Your task to perform on an android device: toggle notifications settings in the gmail app Image 0: 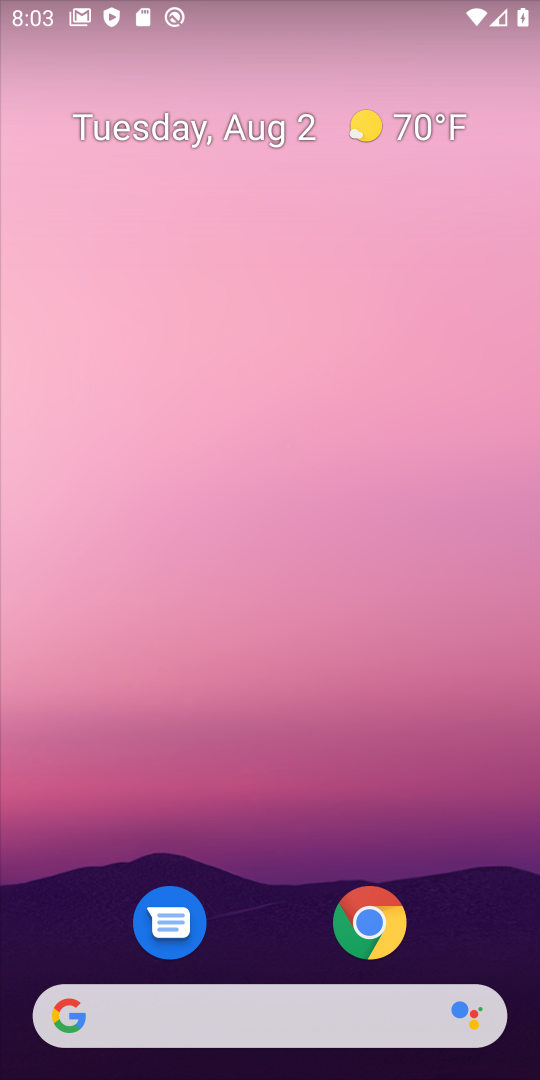
Step 0: drag from (491, 882) to (355, 105)
Your task to perform on an android device: toggle notifications settings in the gmail app Image 1: 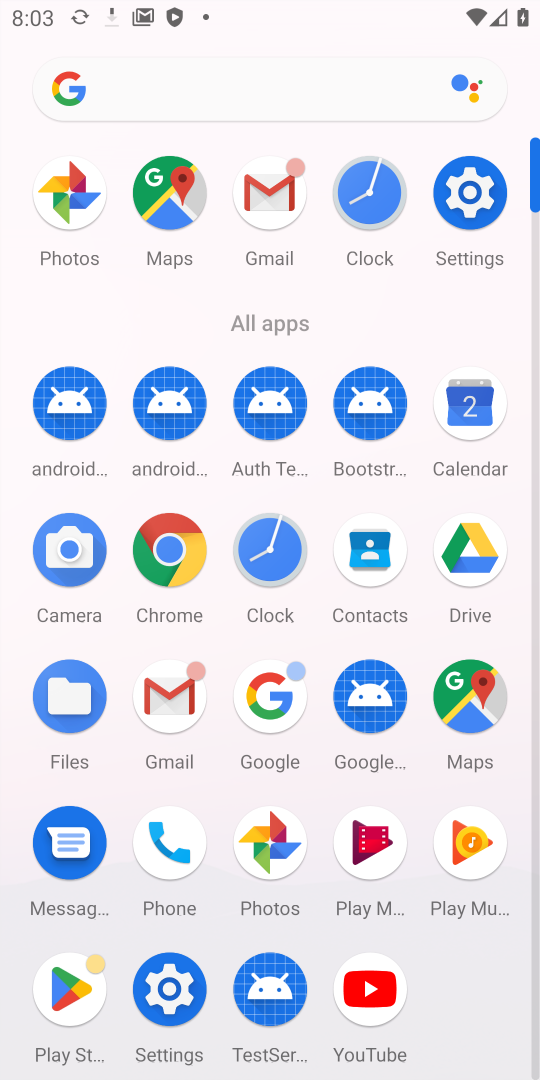
Step 1: click (178, 694)
Your task to perform on an android device: toggle notifications settings in the gmail app Image 2: 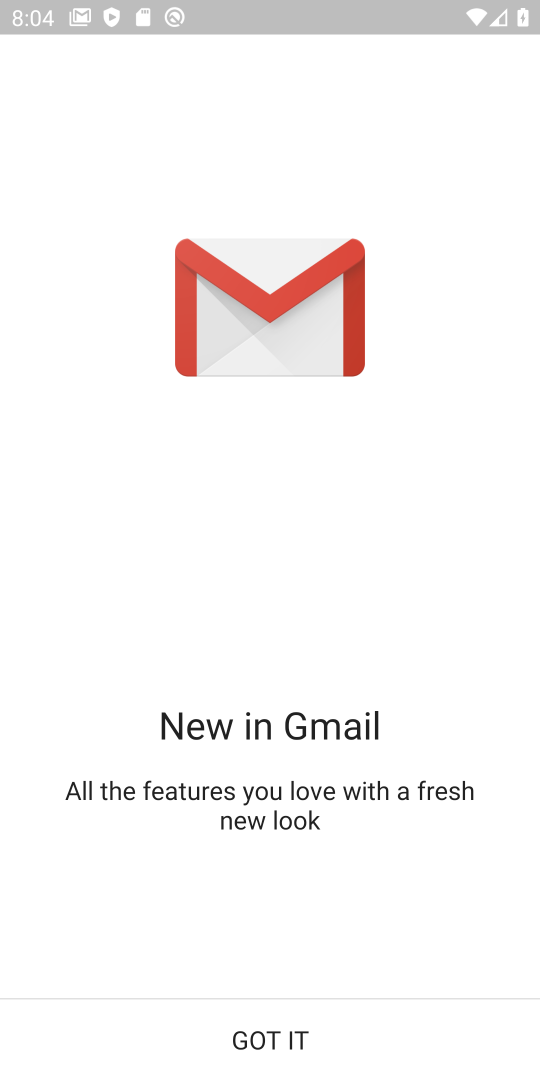
Step 2: click (353, 1048)
Your task to perform on an android device: toggle notifications settings in the gmail app Image 3: 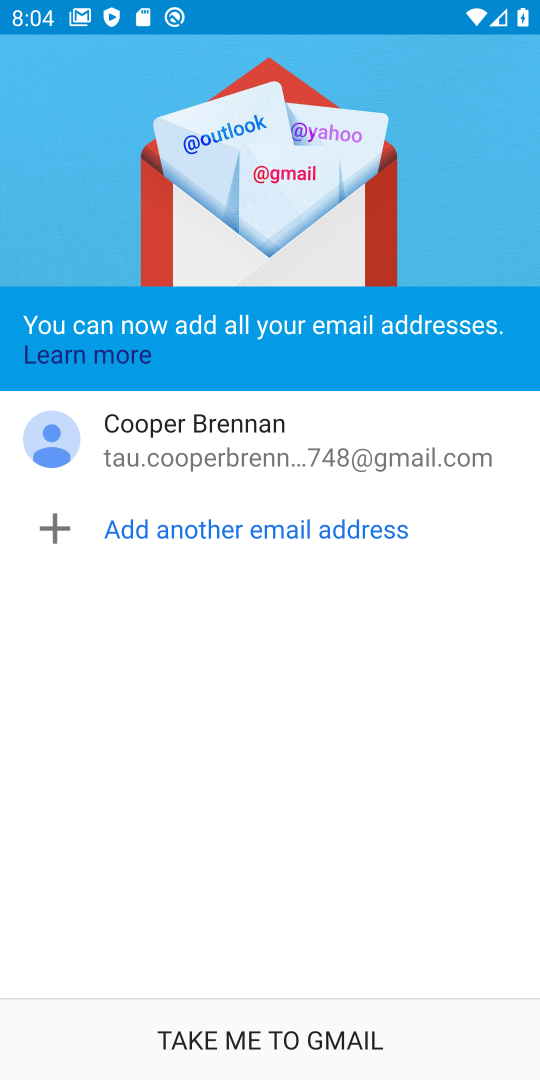
Step 3: click (239, 443)
Your task to perform on an android device: toggle notifications settings in the gmail app Image 4: 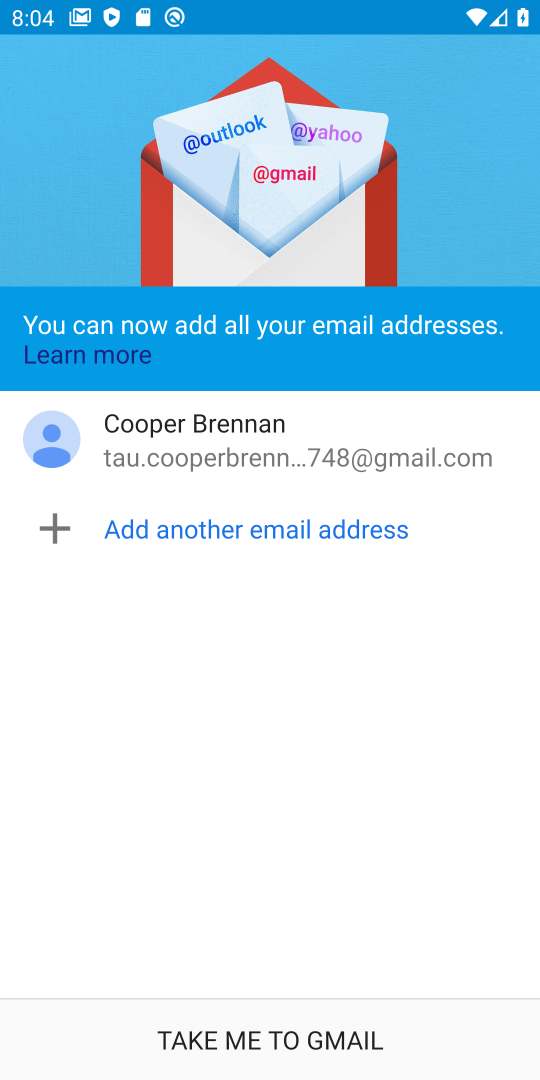
Step 4: click (239, 443)
Your task to perform on an android device: toggle notifications settings in the gmail app Image 5: 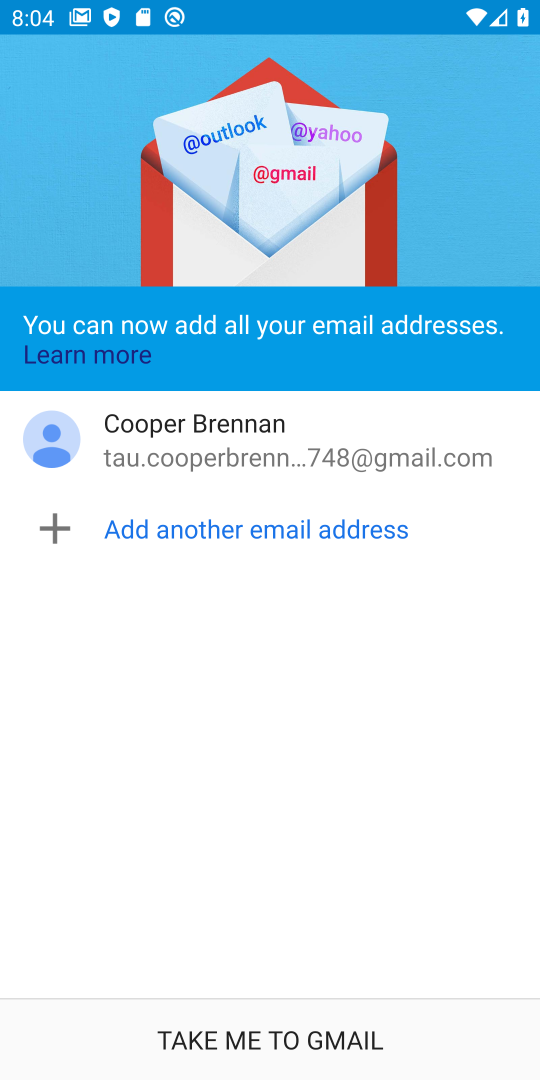
Step 5: click (347, 1012)
Your task to perform on an android device: toggle notifications settings in the gmail app Image 6: 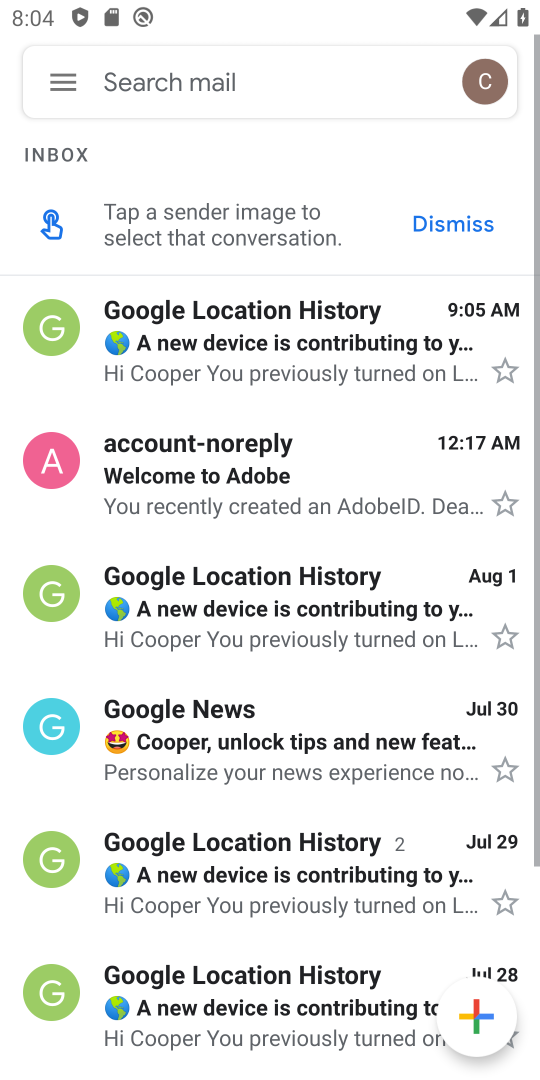
Step 6: click (71, 87)
Your task to perform on an android device: toggle notifications settings in the gmail app Image 7: 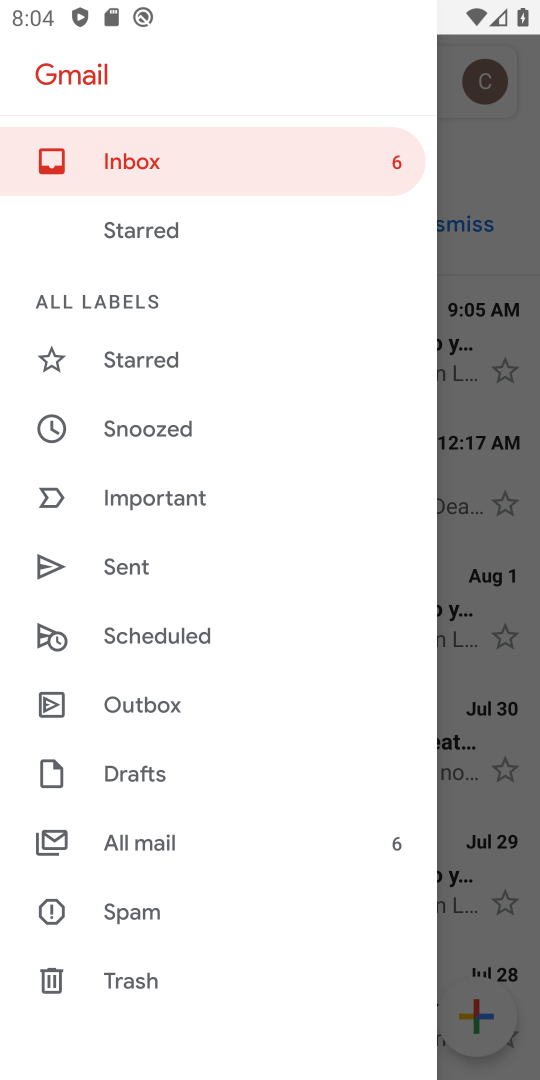
Step 7: drag from (191, 787) to (186, 141)
Your task to perform on an android device: toggle notifications settings in the gmail app Image 8: 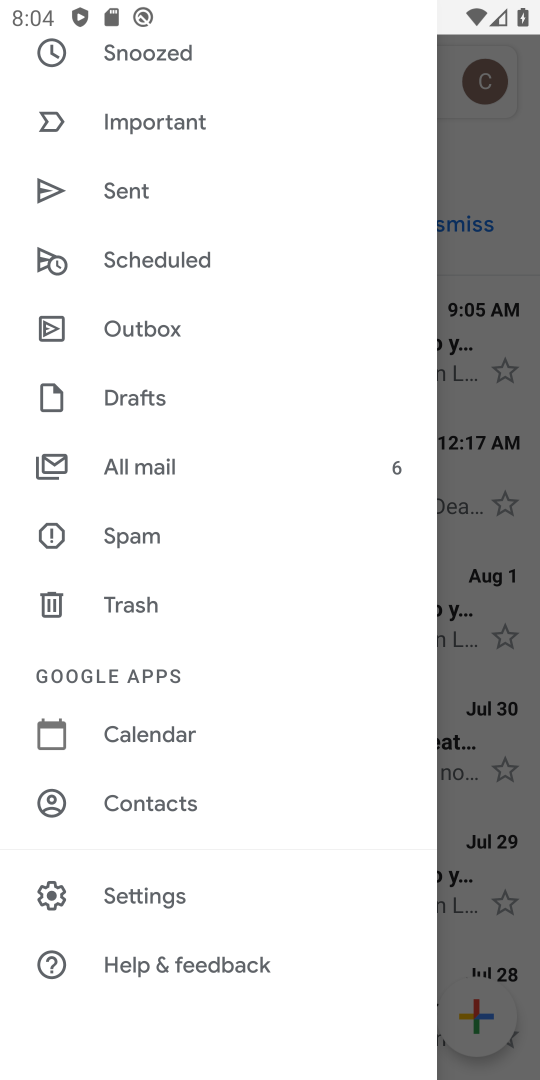
Step 8: click (166, 885)
Your task to perform on an android device: toggle notifications settings in the gmail app Image 9: 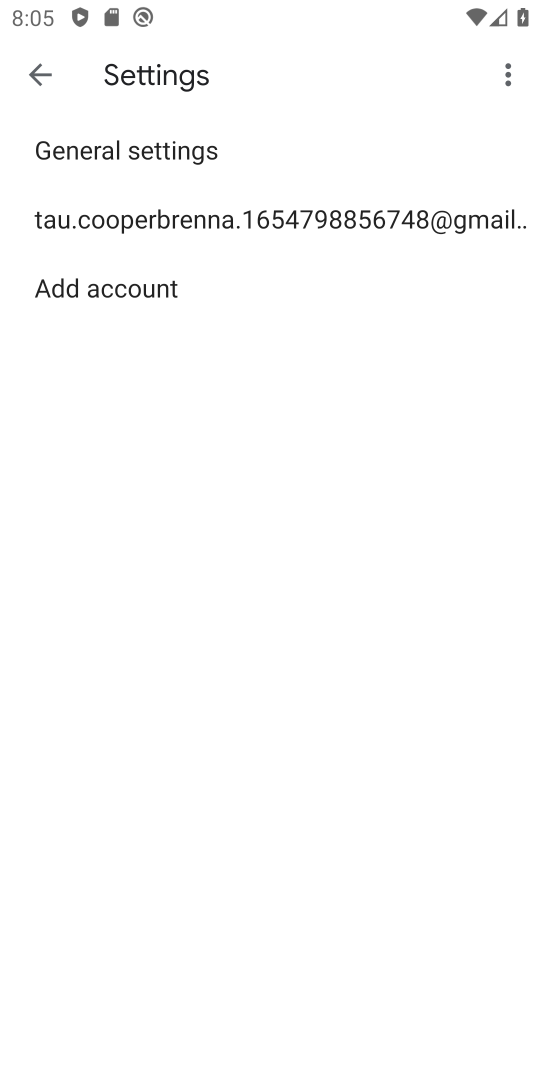
Step 9: click (152, 212)
Your task to perform on an android device: toggle notifications settings in the gmail app Image 10: 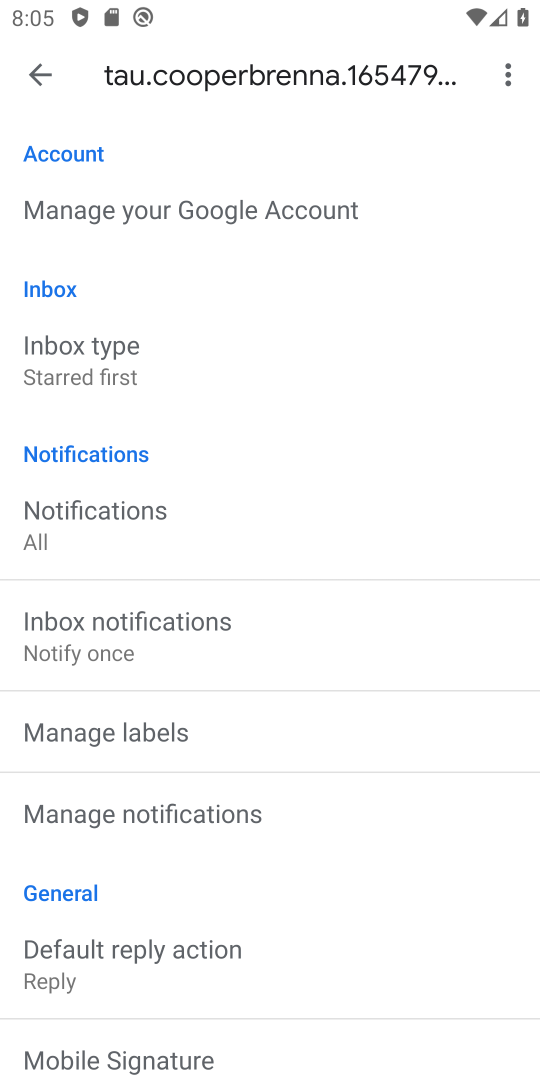
Step 10: click (152, 527)
Your task to perform on an android device: toggle notifications settings in the gmail app Image 11: 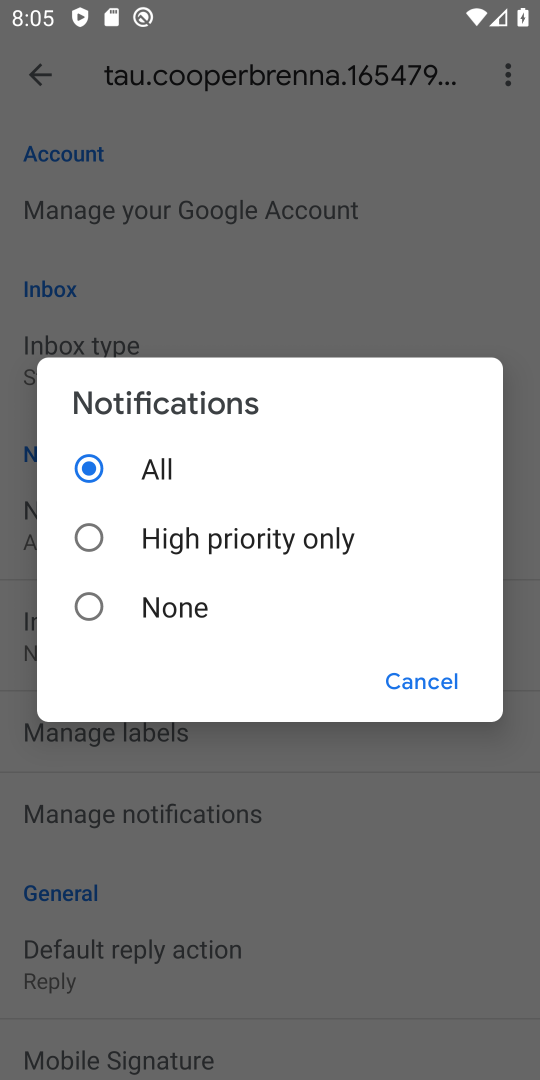
Step 11: click (104, 598)
Your task to perform on an android device: toggle notifications settings in the gmail app Image 12: 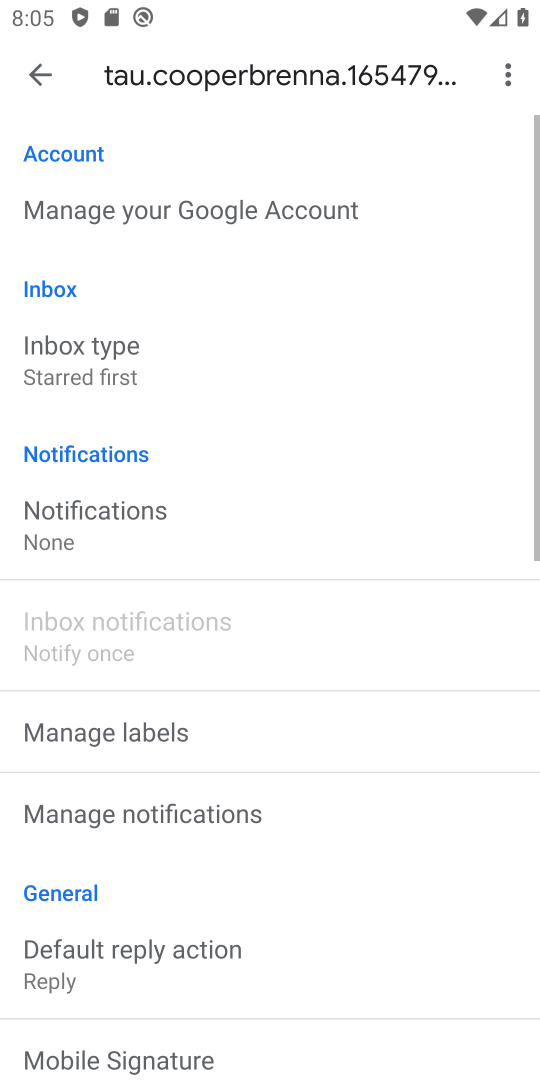
Step 12: task complete